Your task to perform on an android device: turn off sleep mode Image 0: 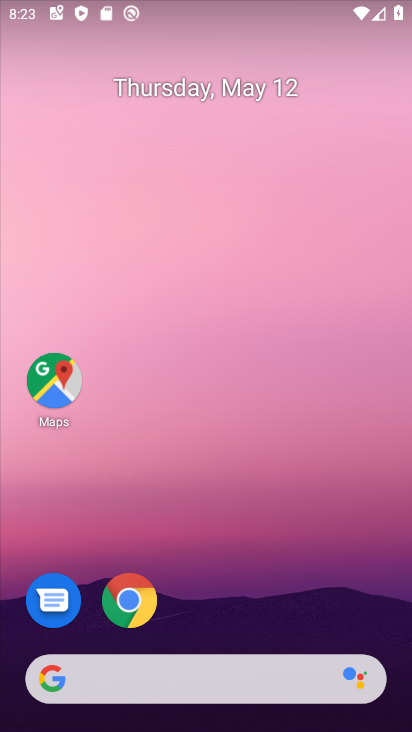
Step 0: drag from (239, 484) to (294, 203)
Your task to perform on an android device: turn off sleep mode Image 1: 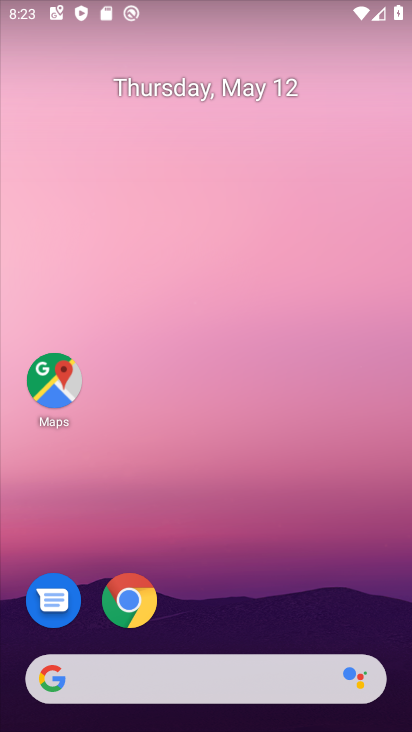
Step 1: drag from (255, 602) to (172, 1)
Your task to perform on an android device: turn off sleep mode Image 2: 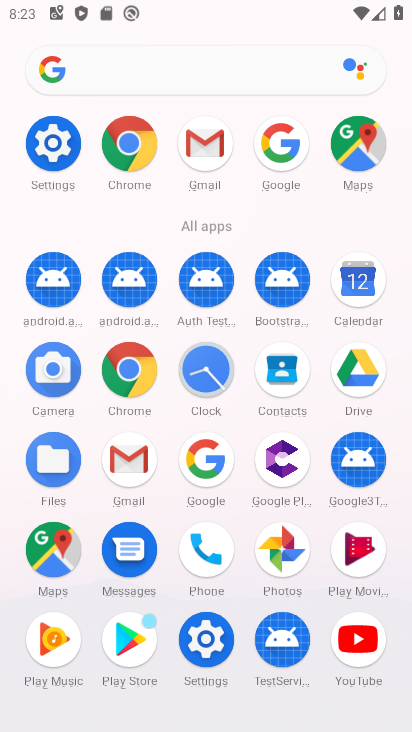
Step 2: click (59, 154)
Your task to perform on an android device: turn off sleep mode Image 3: 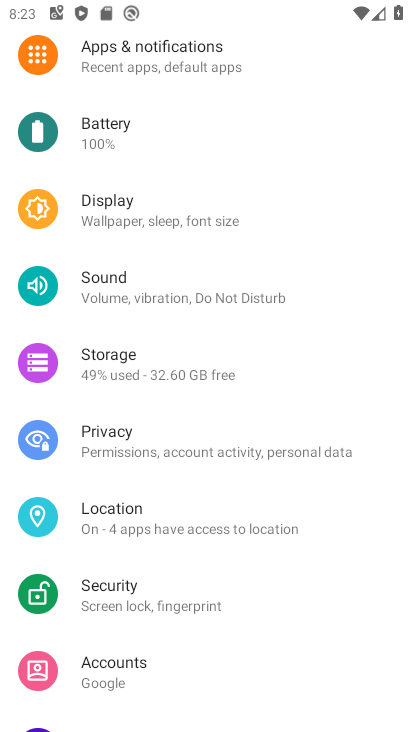
Step 3: task complete